Your task to perform on an android device: turn on location history Image 0: 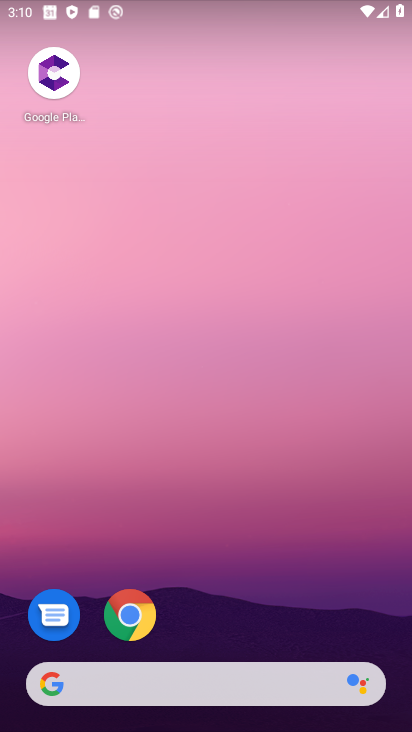
Step 0: drag from (298, 551) to (298, 35)
Your task to perform on an android device: turn on location history Image 1: 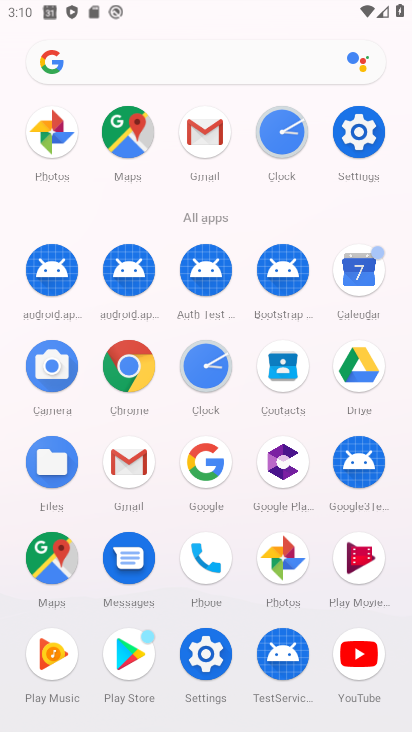
Step 1: click (360, 138)
Your task to perform on an android device: turn on location history Image 2: 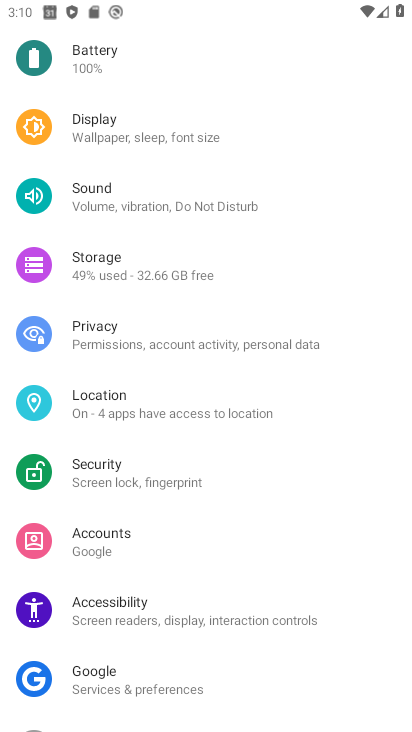
Step 2: click (127, 413)
Your task to perform on an android device: turn on location history Image 3: 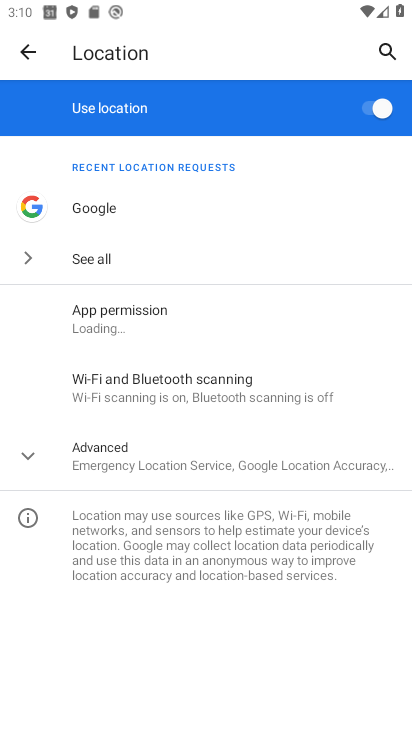
Step 3: click (208, 453)
Your task to perform on an android device: turn on location history Image 4: 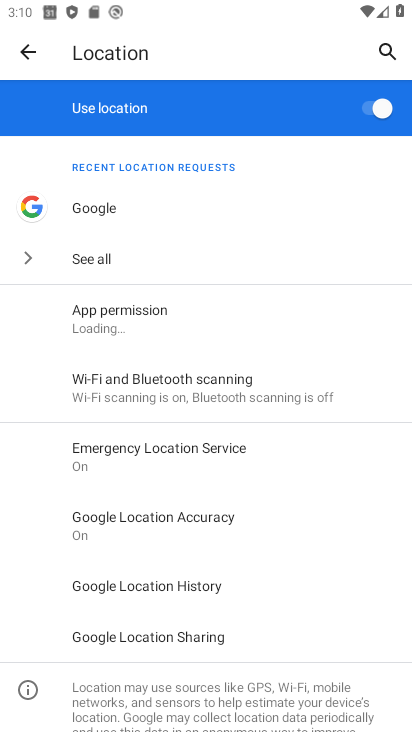
Step 4: click (165, 582)
Your task to perform on an android device: turn on location history Image 5: 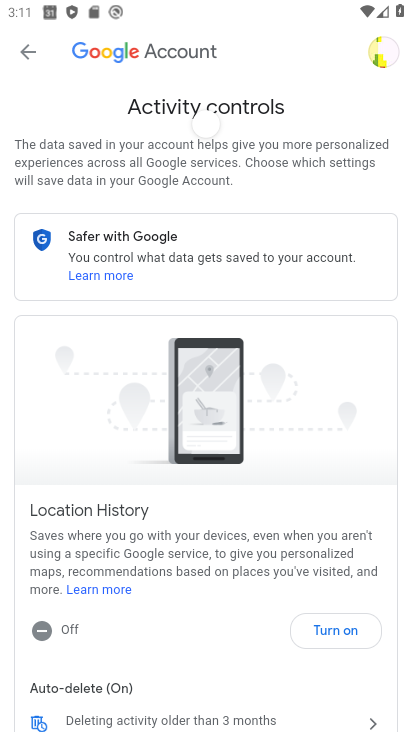
Step 5: click (319, 628)
Your task to perform on an android device: turn on location history Image 6: 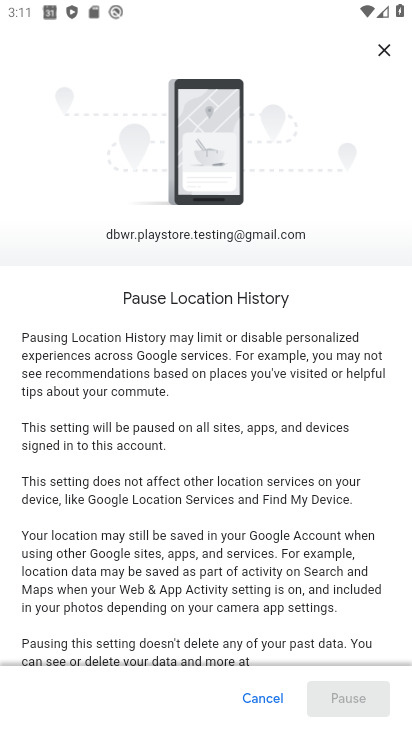
Step 6: drag from (301, 630) to (293, 169)
Your task to perform on an android device: turn on location history Image 7: 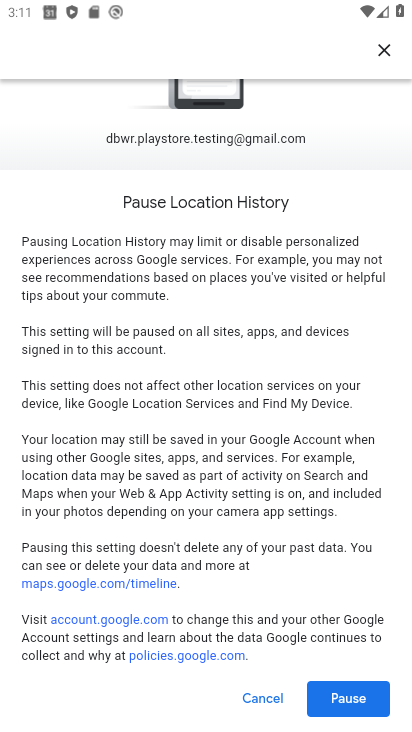
Step 7: click (338, 698)
Your task to perform on an android device: turn on location history Image 8: 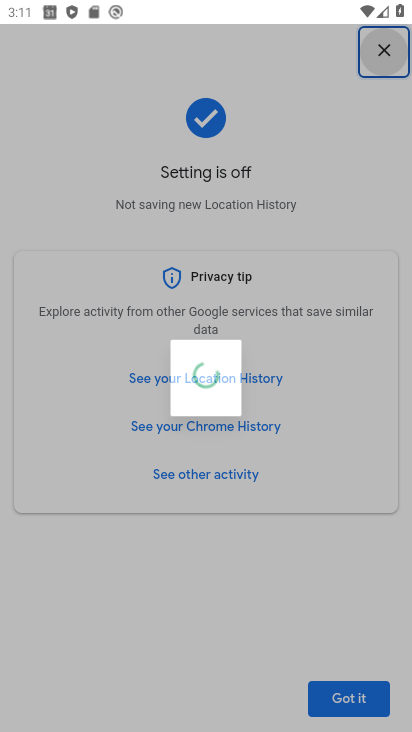
Step 8: click (379, 694)
Your task to perform on an android device: turn on location history Image 9: 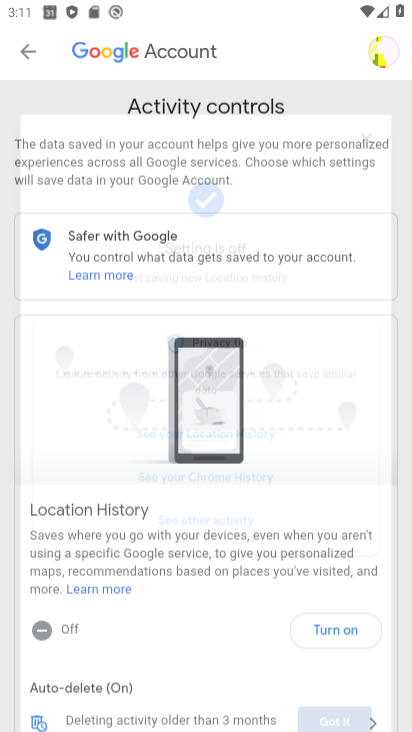
Step 9: click (339, 700)
Your task to perform on an android device: turn on location history Image 10: 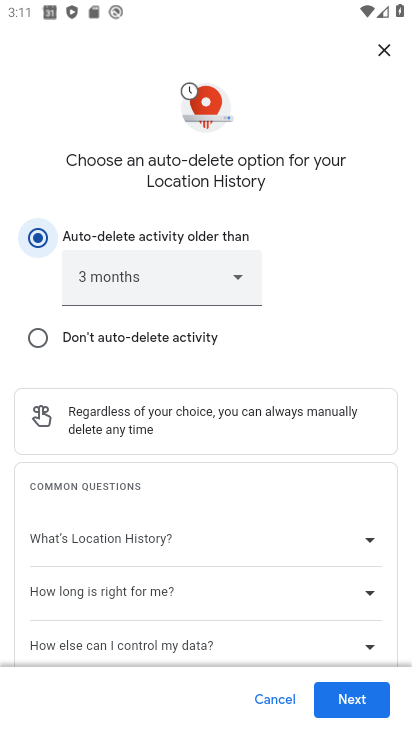
Step 10: task complete